Your task to perform on an android device: turn on sleep mode Image 0: 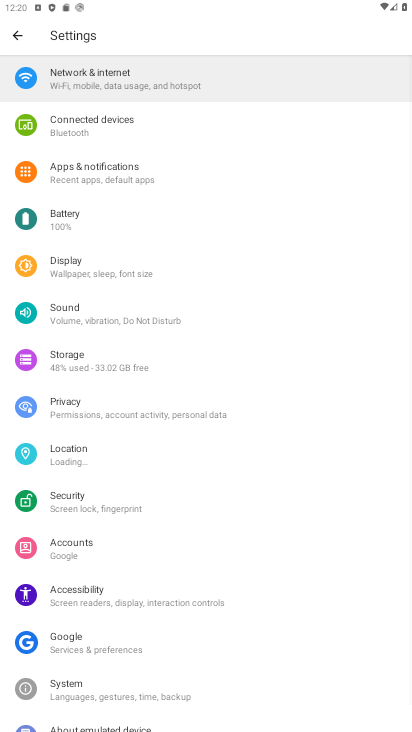
Step 0: task impossible